Your task to perform on an android device: Search for the best rated desk chair on Article.com Image 0: 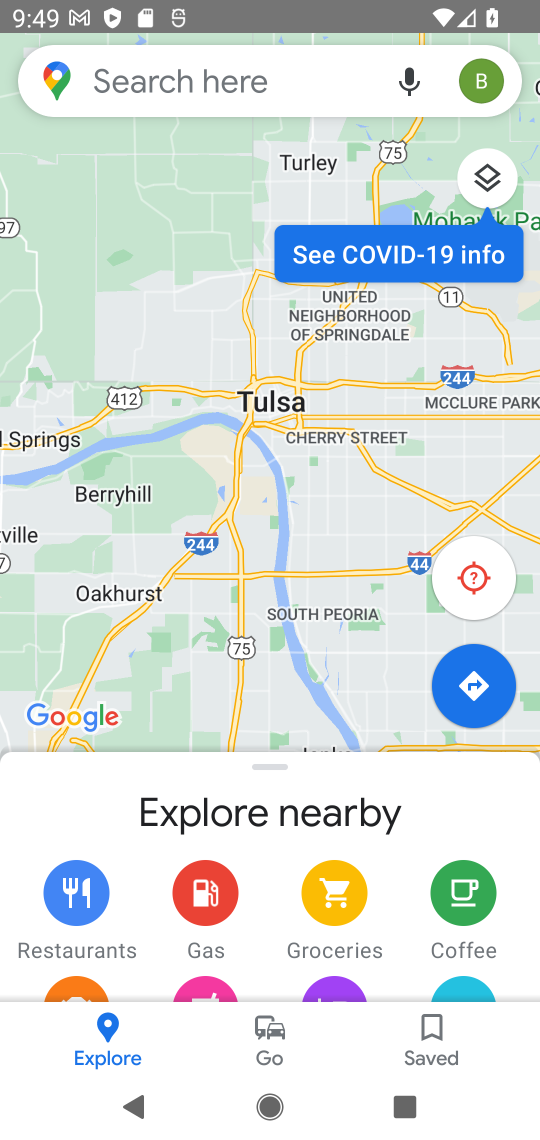
Step 0: press home button
Your task to perform on an android device: Search for the best rated desk chair on Article.com Image 1: 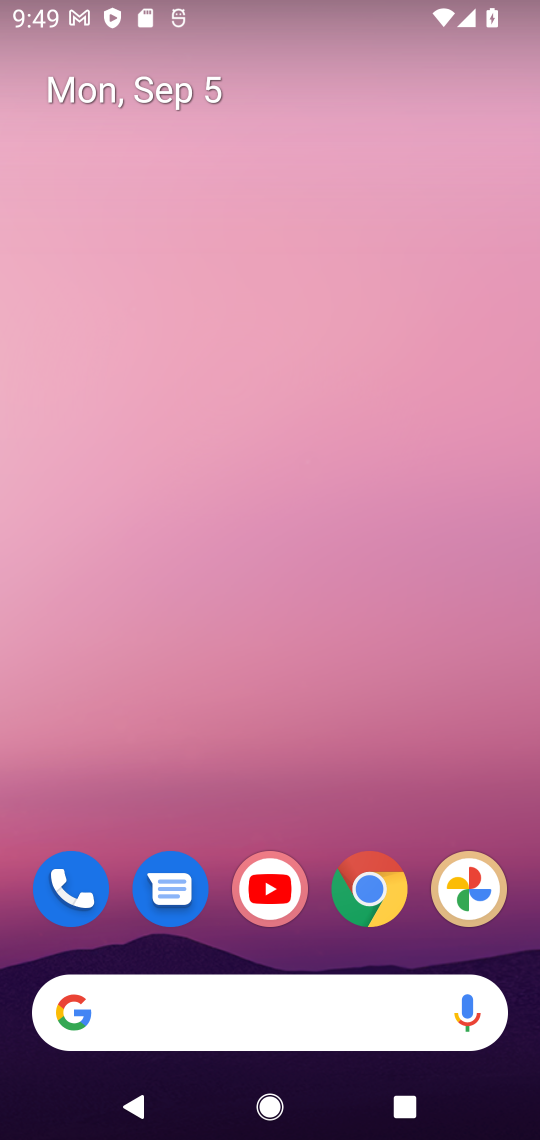
Step 1: click (215, 1025)
Your task to perform on an android device: Search for the best rated desk chair on Article.com Image 2: 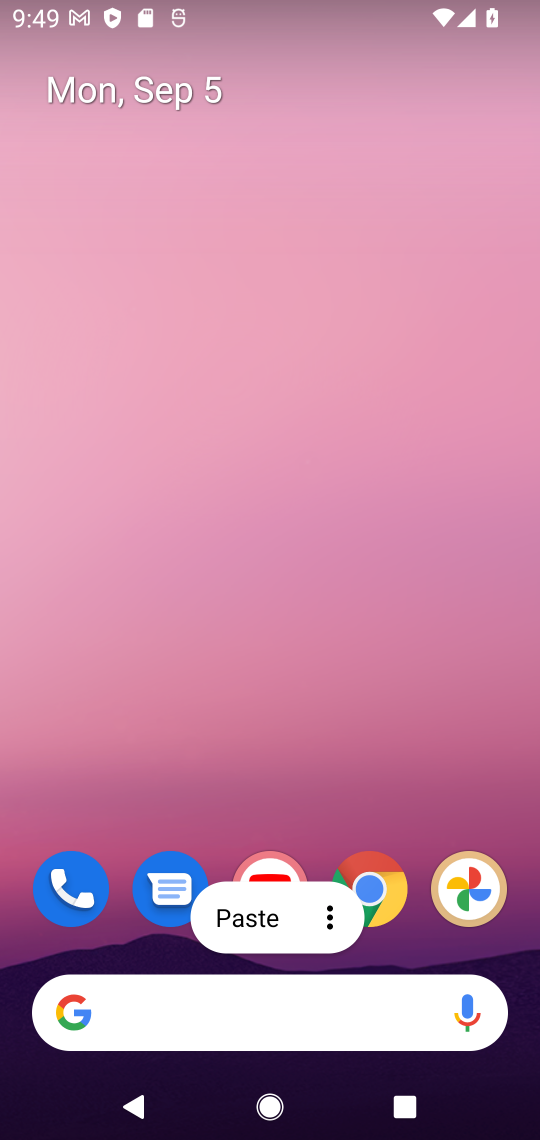
Step 2: click (231, 1024)
Your task to perform on an android device: Search for the best rated desk chair on Article.com Image 3: 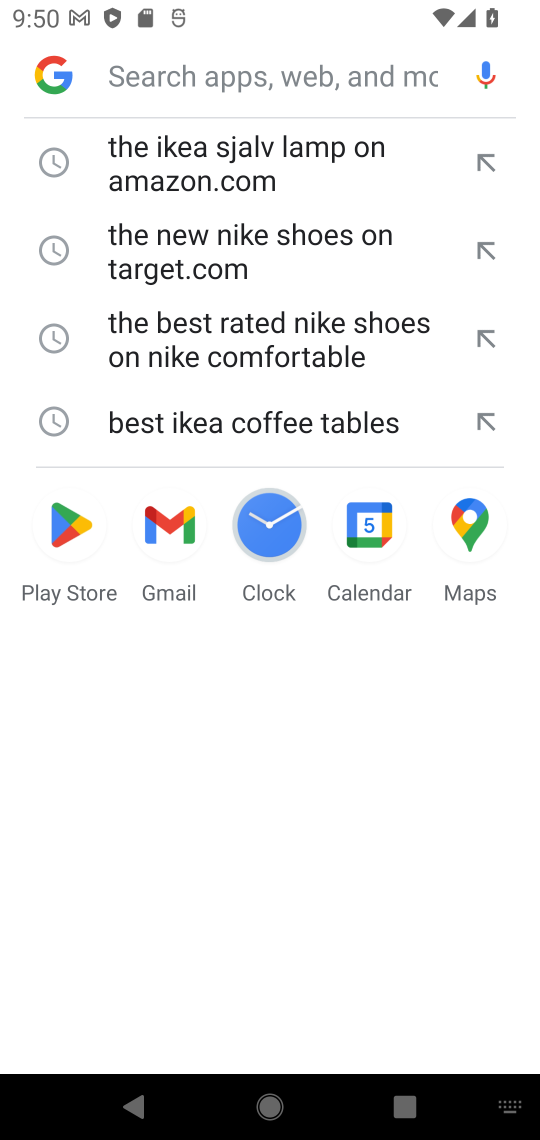
Step 3: type "the best rated desk chair on Article.com"
Your task to perform on an android device: Search for the best rated desk chair on Article.com Image 4: 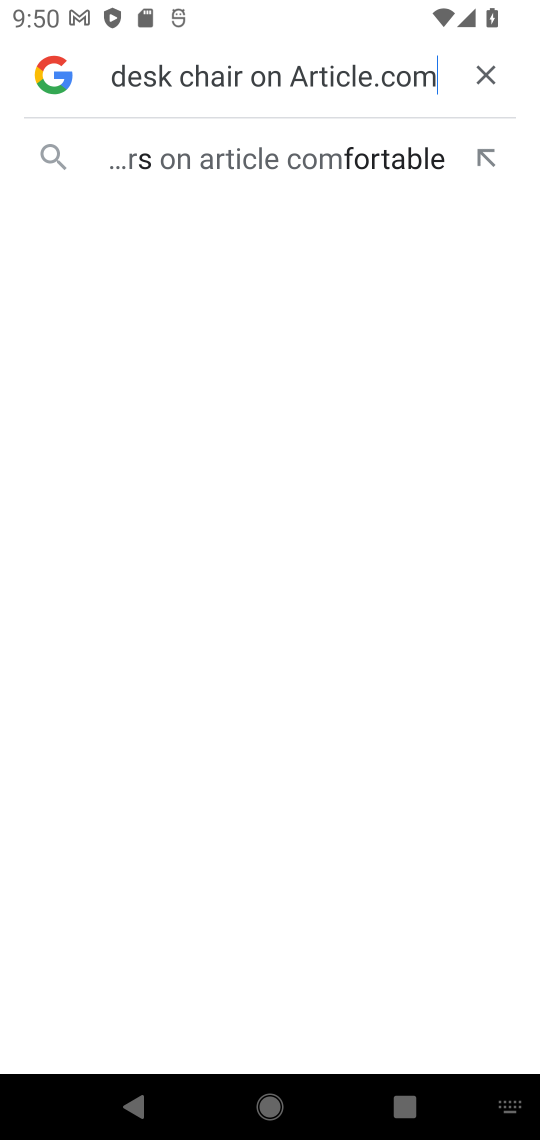
Step 4: type "\"
Your task to perform on an android device: Search for the best rated desk chair on Article.com Image 5: 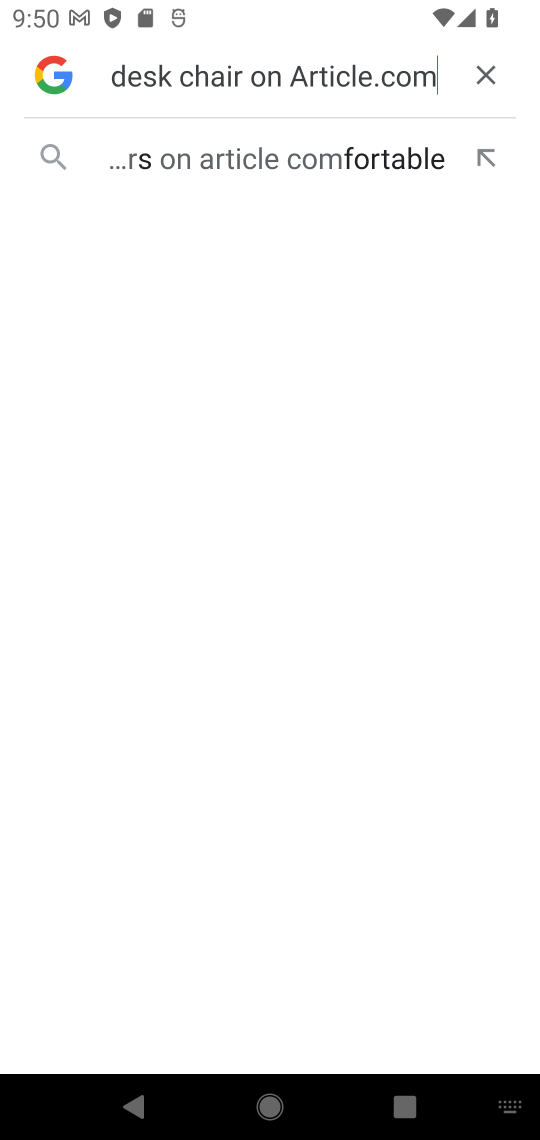
Step 5: click (316, 148)
Your task to perform on an android device: Search for the best rated desk chair on Article.com Image 6: 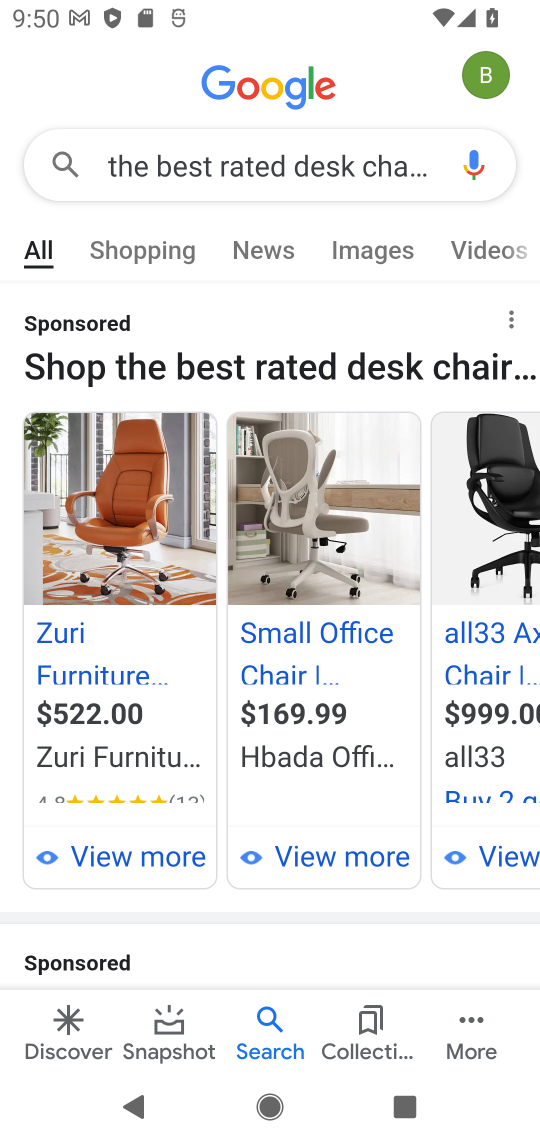
Step 6: task complete